Your task to perform on an android device: turn on javascript in the chrome app Image 0: 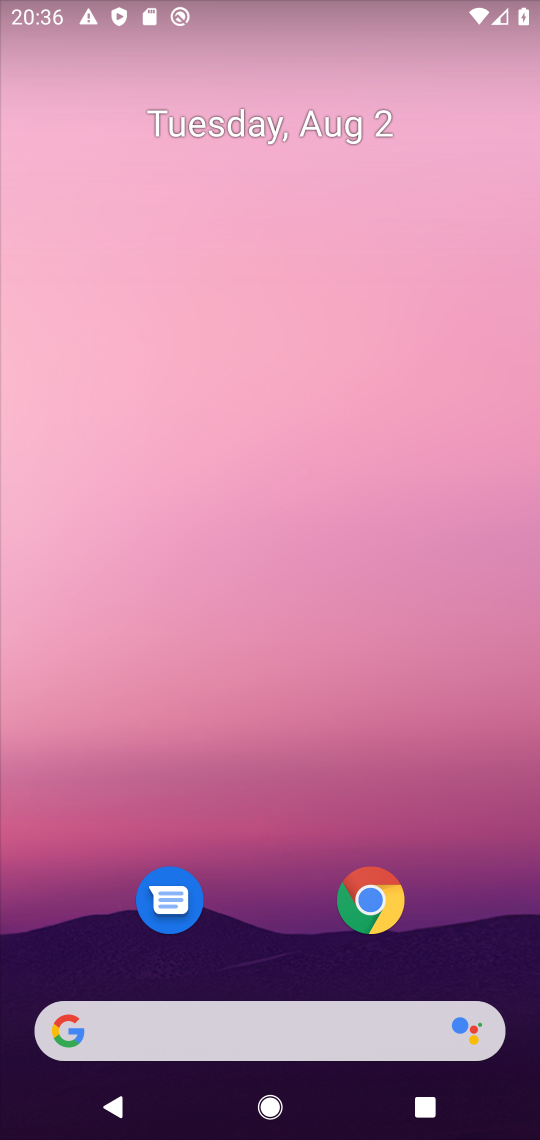
Step 0: click (373, 915)
Your task to perform on an android device: turn on javascript in the chrome app Image 1: 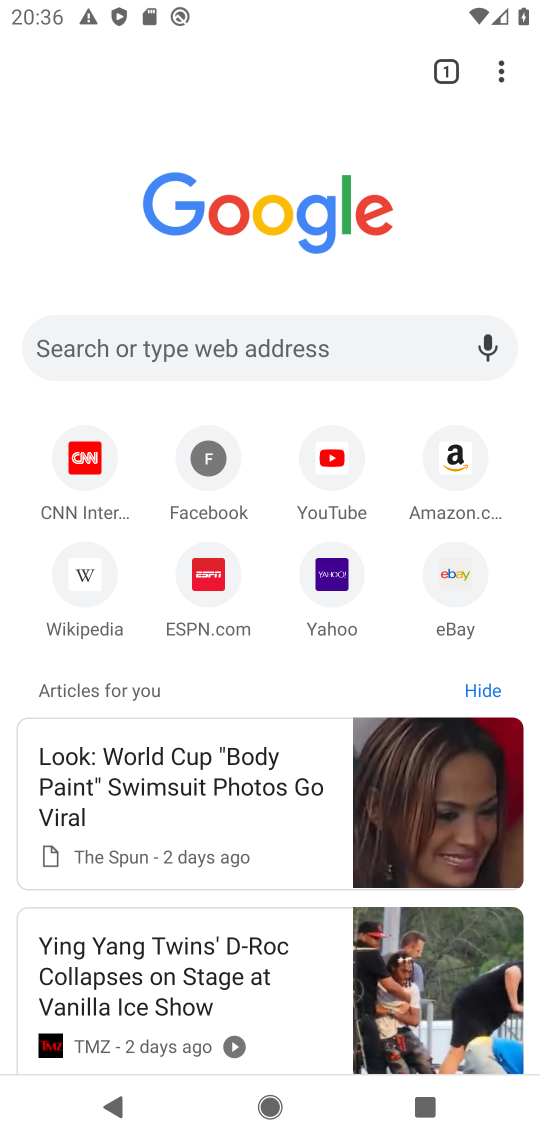
Step 1: click (494, 70)
Your task to perform on an android device: turn on javascript in the chrome app Image 2: 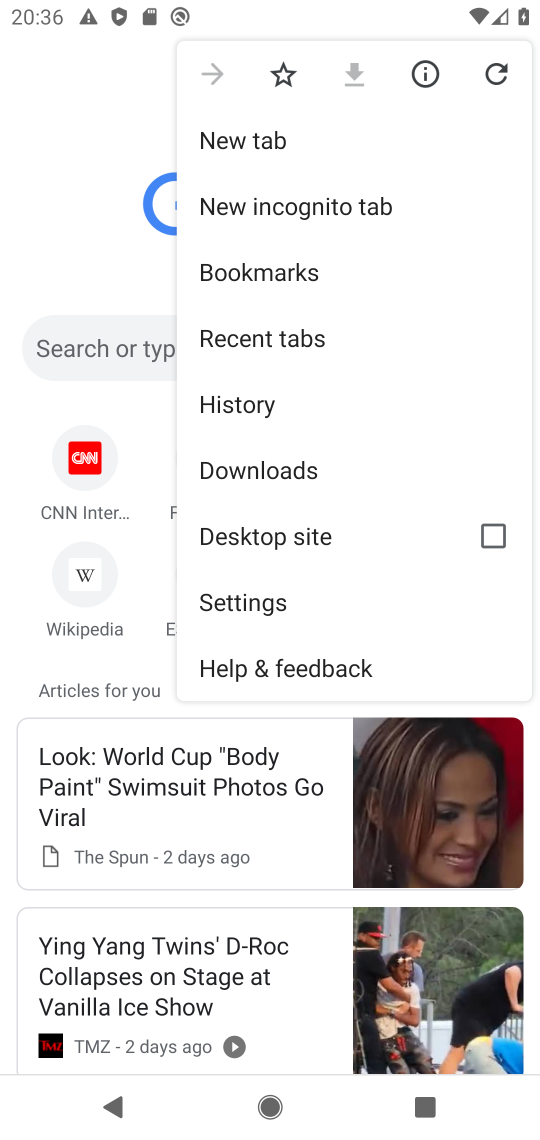
Step 2: click (283, 598)
Your task to perform on an android device: turn on javascript in the chrome app Image 3: 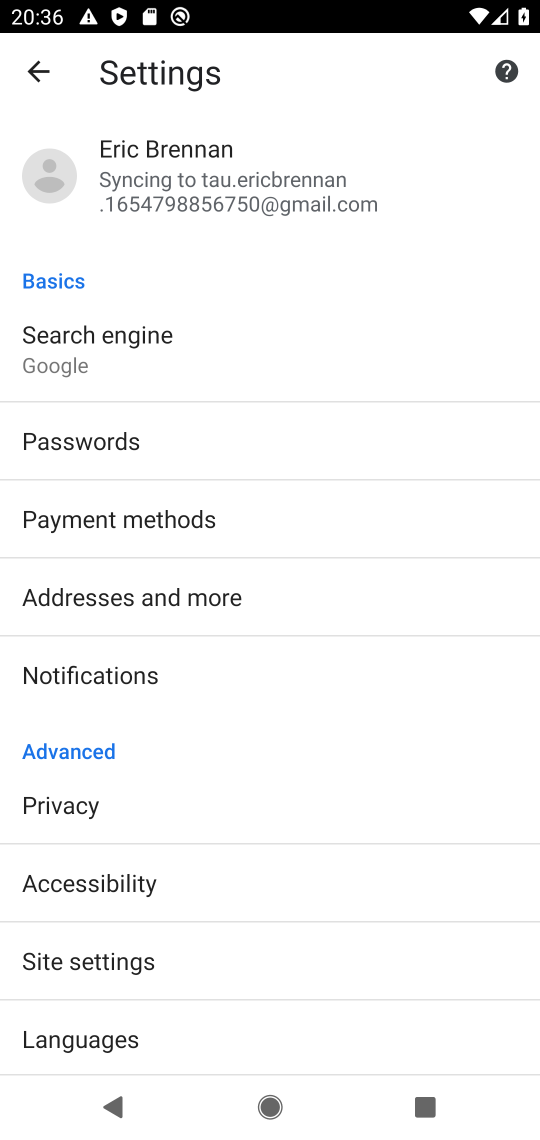
Step 3: click (129, 955)
Your task to perform on an android device: turn on javascript in the chrome app Image 4: 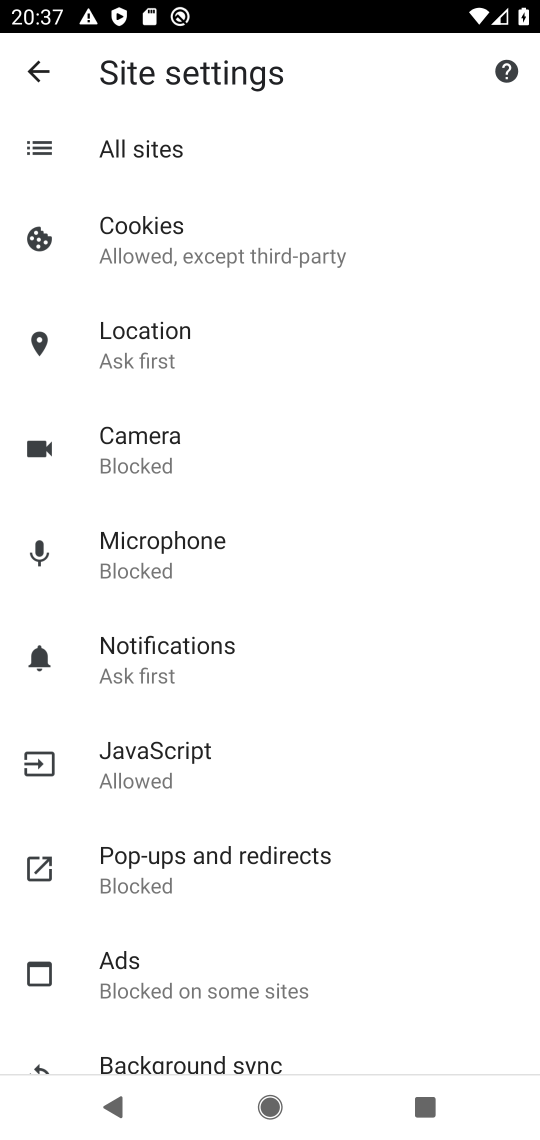
Step 4: click (193, 762)
Your task to perform on an android device: turn on javascript in the chrome app Image 5: 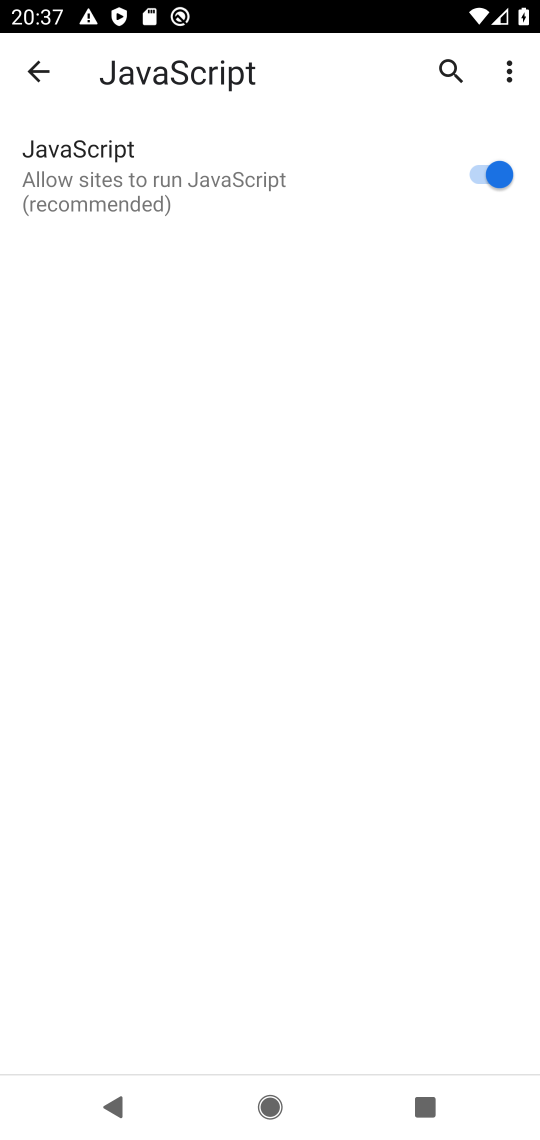
Step 5: task complete